Your task to perform on an android device: find snoozed emails in the gmail app Image 0: 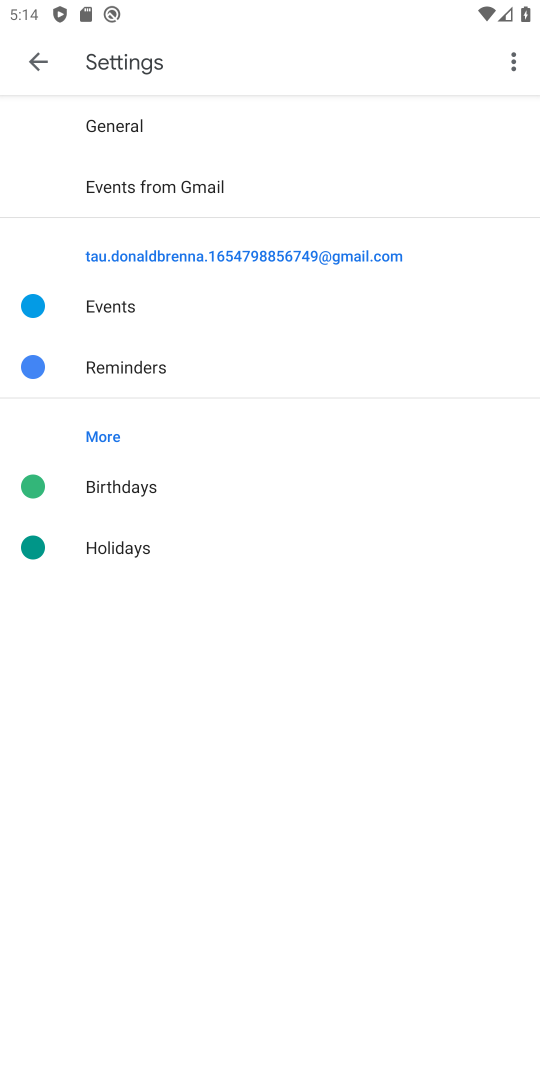
Step 0: press home button
Your task to perform on an android device: find snoozed emails in the gmail app Image 1: 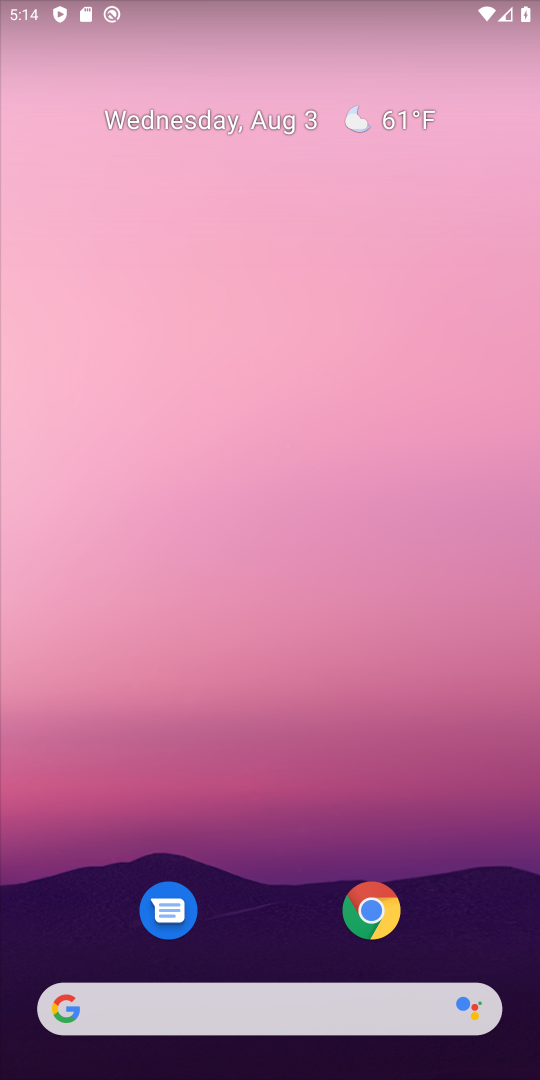
Step 1: drag from (280, 878) to (383, 169)
Your task to perform on an android device: find snoozed emails in the gmail app Image 2: 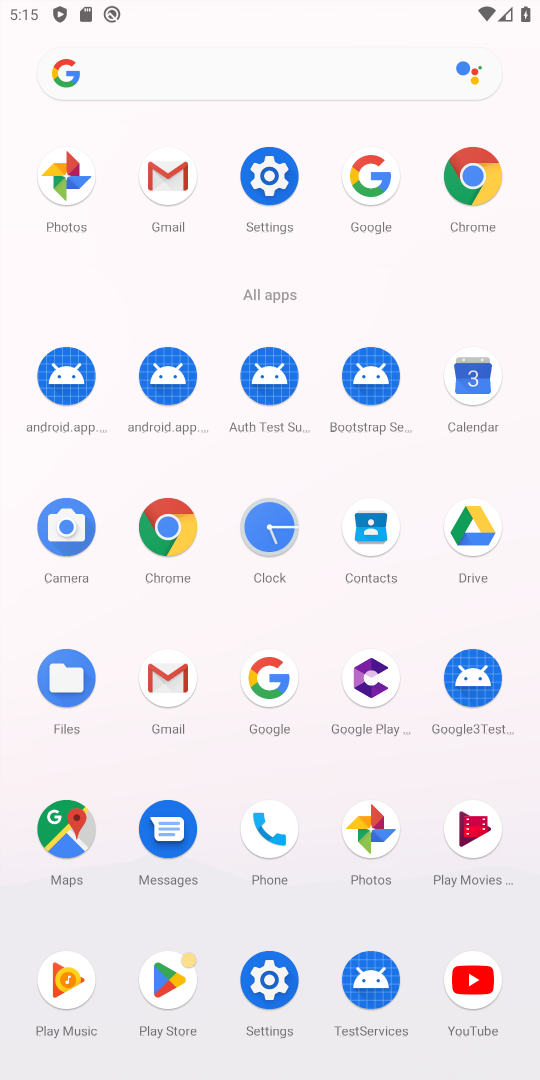
Step 2: click (164, 669)
Your task to perform on an android device: find snoozed emails in the gmail app Image 3: 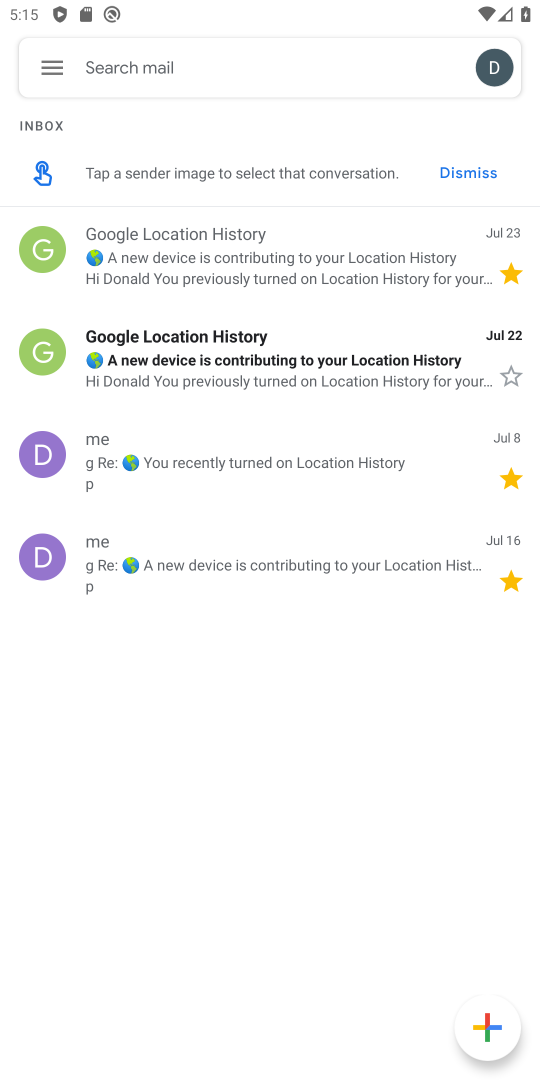
Step 3: click (45, 66)
Your task to perform on an android device: find snoozed emails in the gmail app Image 4: 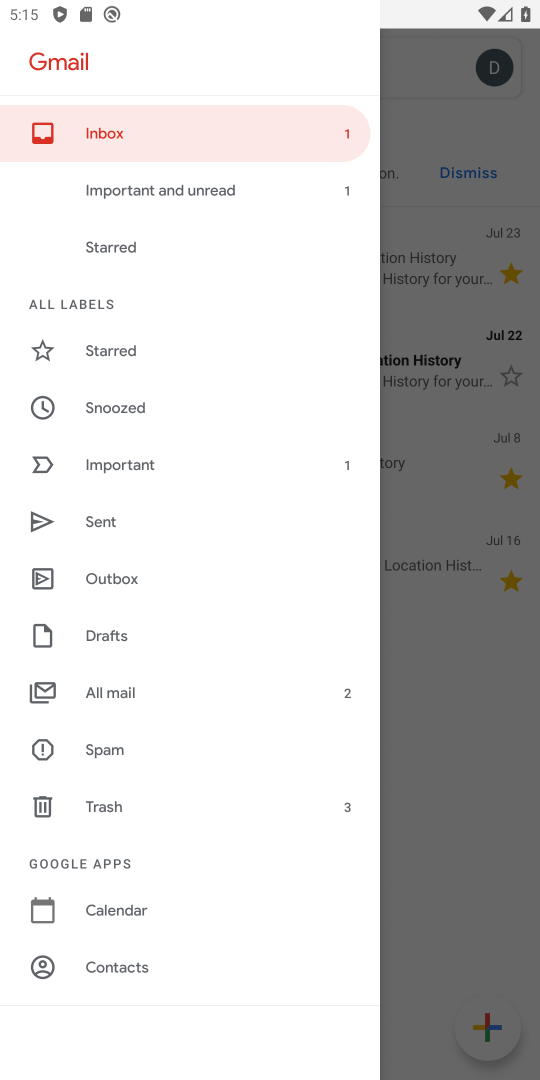
Step 4: click (138, 401)
Your task to perform on an android device: find snoozed emails in the gmail app Image 5: 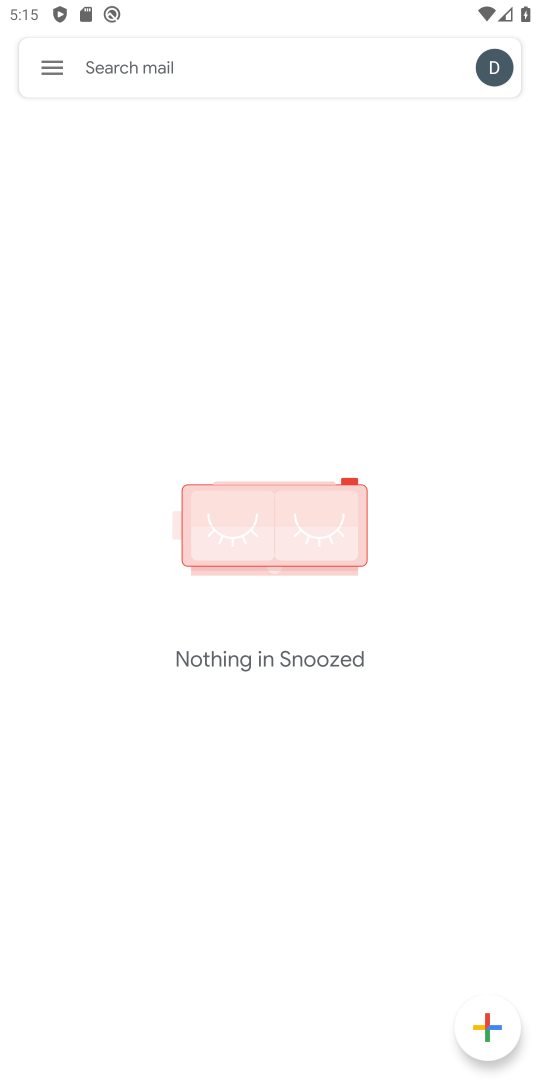
Step 5: task complete